Your task to perform on an android device: Open wifi settings Image 0: 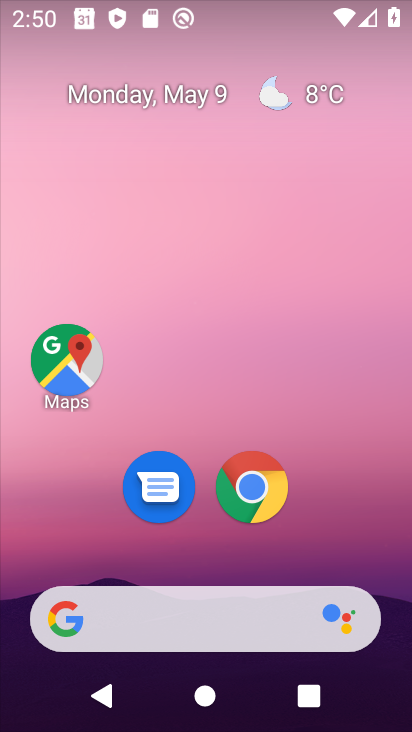
Step 0: drag from (203, 558) to (178, 179)
Your task to perform on an android device: Open wifi settings Image 1: 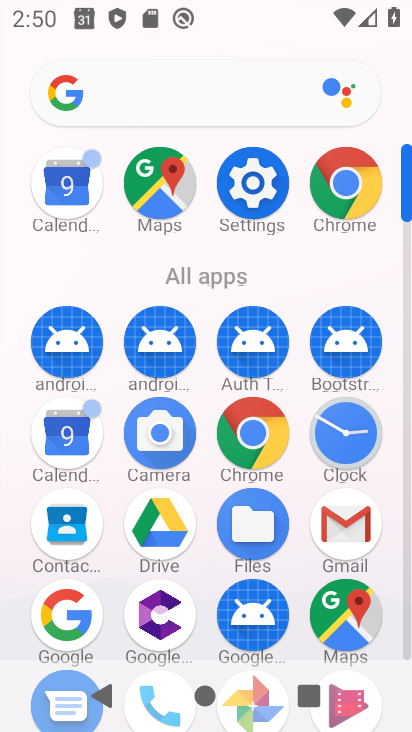
Step 1: click (253, 177)
Your task to perform on an android device: Open wifi settings Image 2: 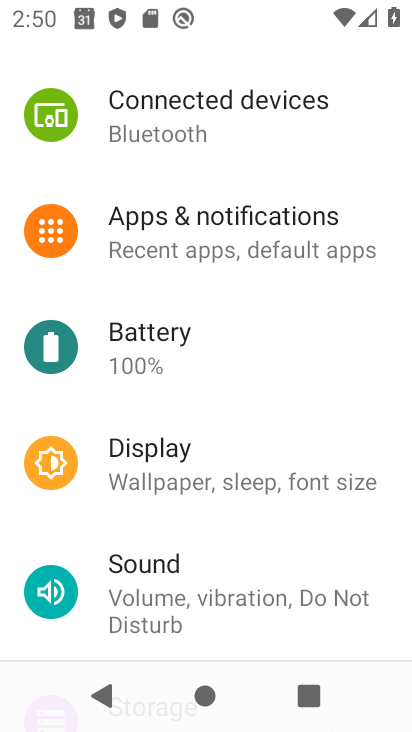
Step 2: drag from (207, 143) to (202, 677)
Your task to perform on an android device: Open wifi settings Image 3: 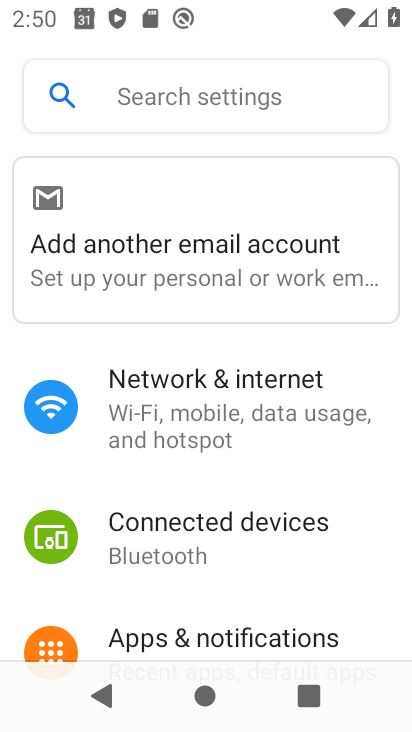
Step 3: click (181, 410)
Your task to perform on an android device: Open wifi settings Image 4: 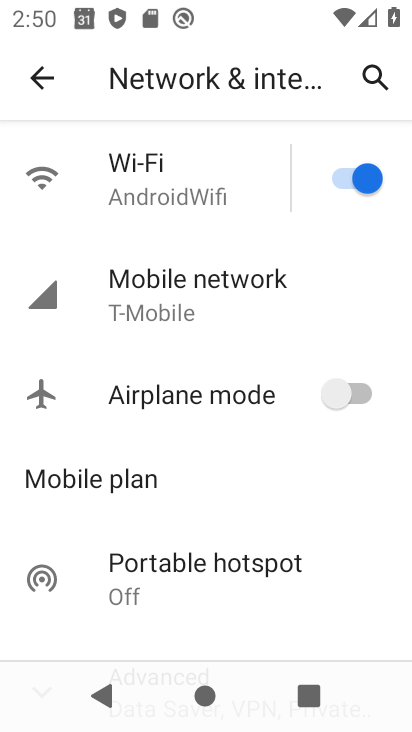
Step 4: drag from (208, 622) to (188, 359)
Your task to perform on an android device: Open wifi settings Image 5: 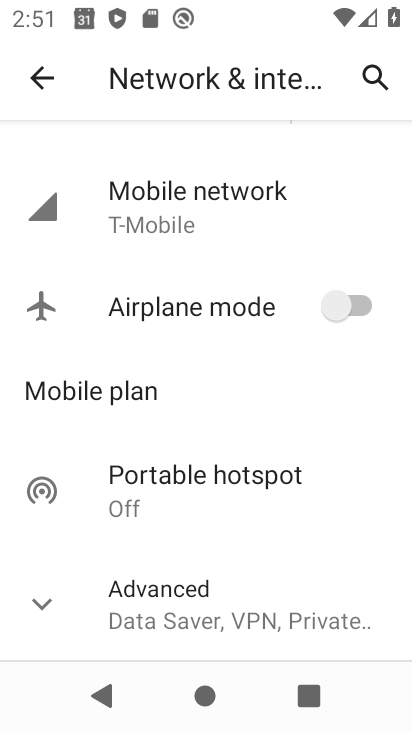
Step 5: drag from (164, 343) to (149, 672)
Your task to perform on an android device: Open wifi settings Image 6: 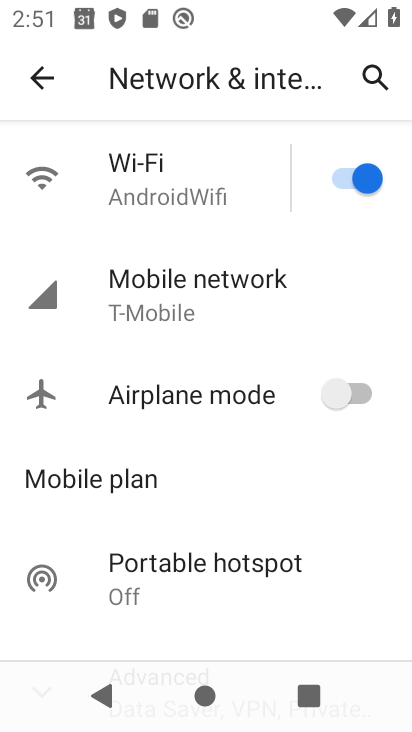
Step 6: click (249, 173)
Your task to perform on an android device: Open wifi settings Image 7: 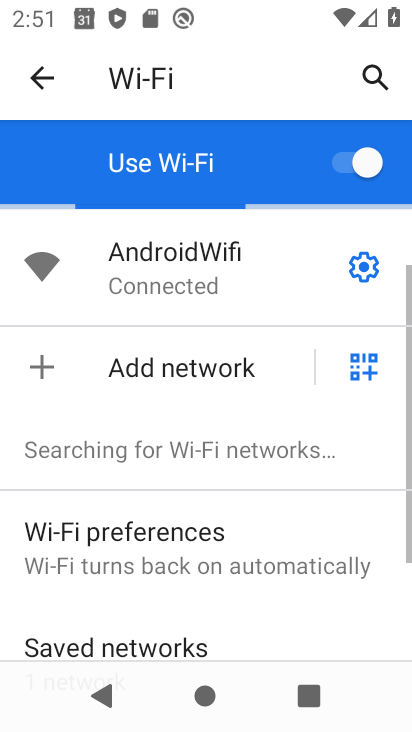
Step 7: task complete